Your task to perform on an android device: turn off notifications settings in the gmail app Image 0: 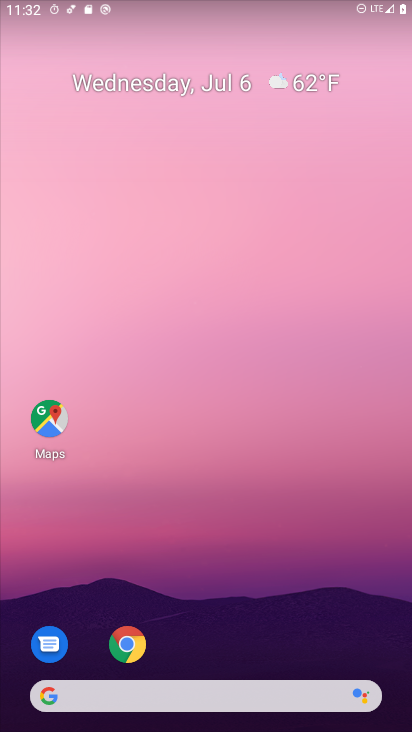
Step 0: press home button
Your task to perform on an android device: turn off notifications settings in the gmail app Image 1: 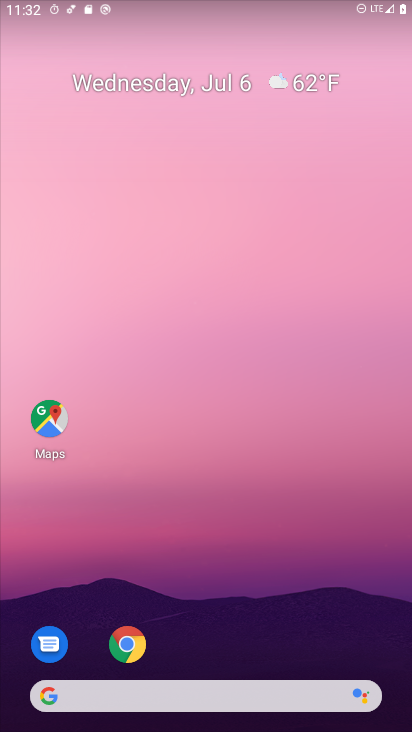
Step 1: drag from (289, 662) to (268, 5)
Your task to perform on an android device: turn off notifications settings in the gmail app Image 2: 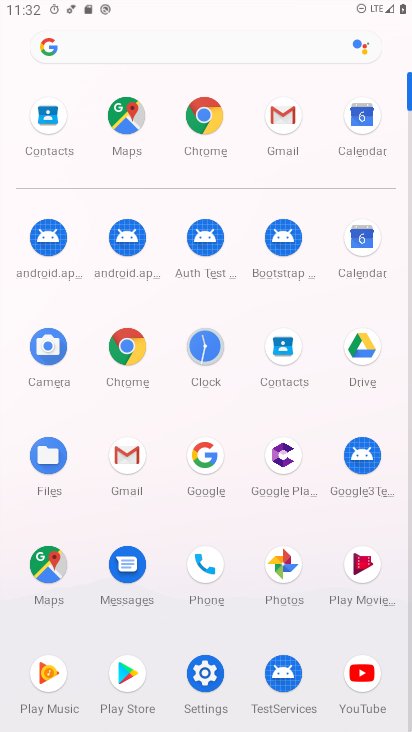
Step 2: click (282, 105)
Your task to perform on an android device: turn off notifications settings in the gmail app Image 3: 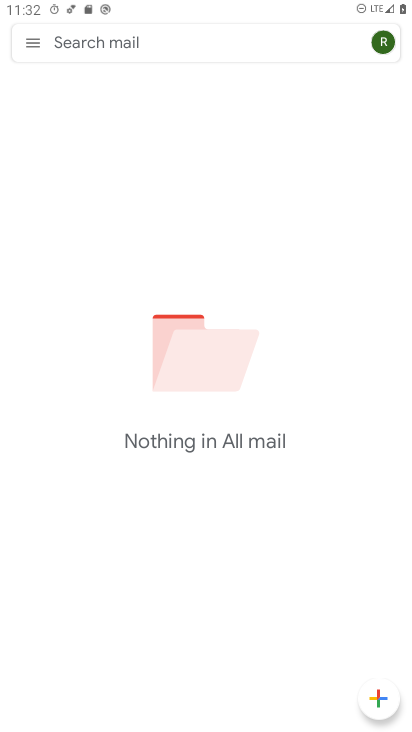
Step 3: click (32, 43)
Your task to perform on an android device: turn off notifications settings in the gmail app Image 4: 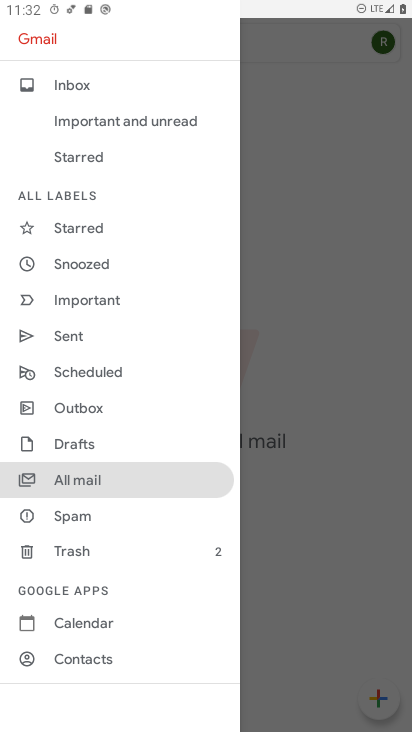
Step 4: drag from (197, 583) to (214, 239)
Your task to perform on an android device: turn off notifications settings in the gmail app Image 5: 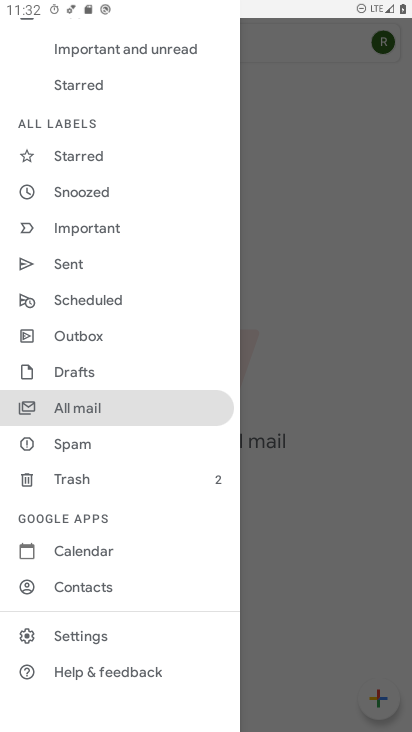
Step 5: click (84, 645)
Your task to perform on an android device: turn off notifications settings in the gmail app Image 6: 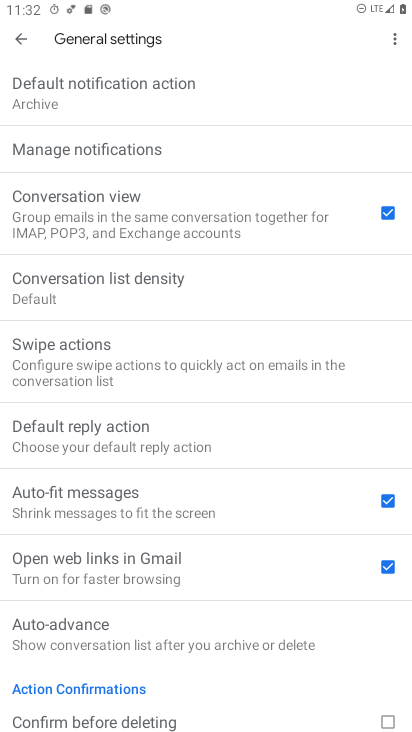
Step 6: click (89, 150)
Your task to perform on an android device: turn off notifications settings in the gmail app Image 7: 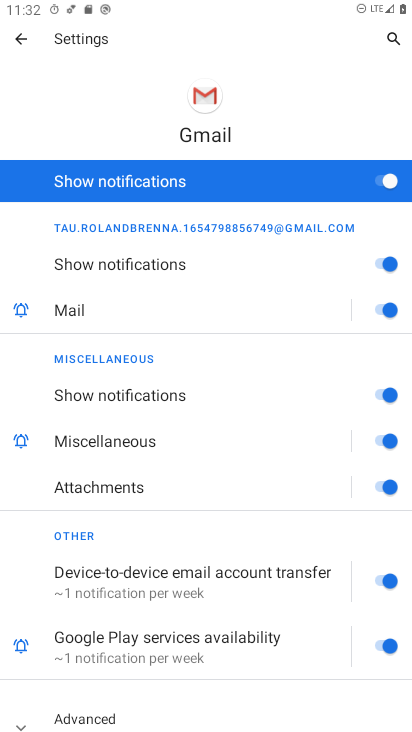
Step 7: click (394, 181)
Your task to perform on an android device: turn off notifications settings in the gmail app Image 8: 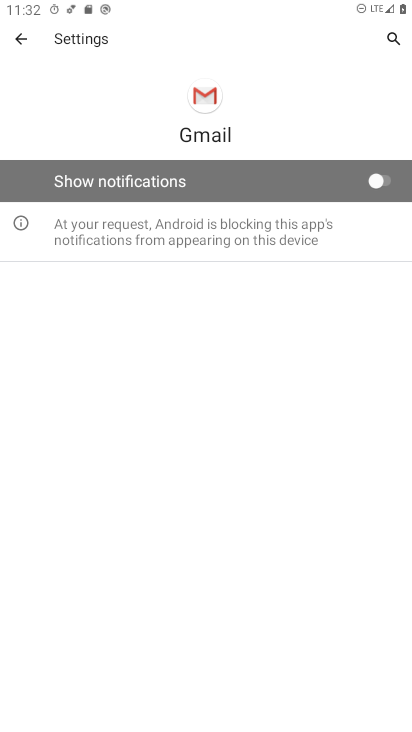
Step 8: task complete